Your task to perform on an android device: Open Reddit.com Image 0: 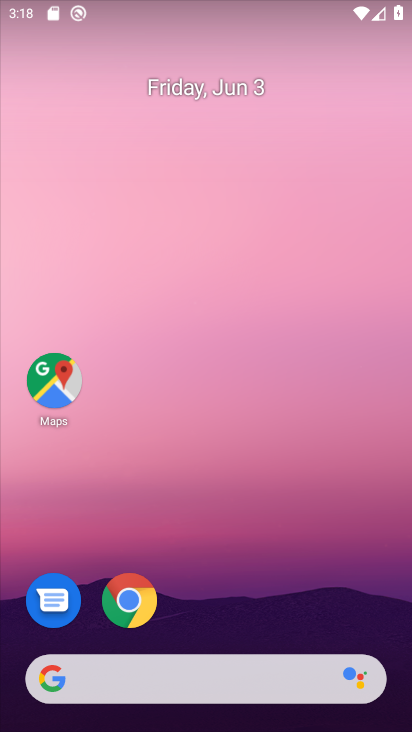
Step 0: click (129, 605)
Your task to perform on an android device: Open Reddit.com Image 1: 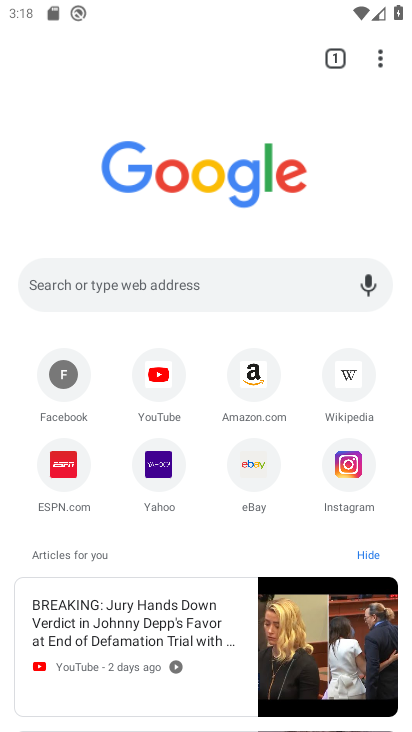
Step 1: click (176, 286)
Your task to perform on an android device: Open Reddit.com Image 2: 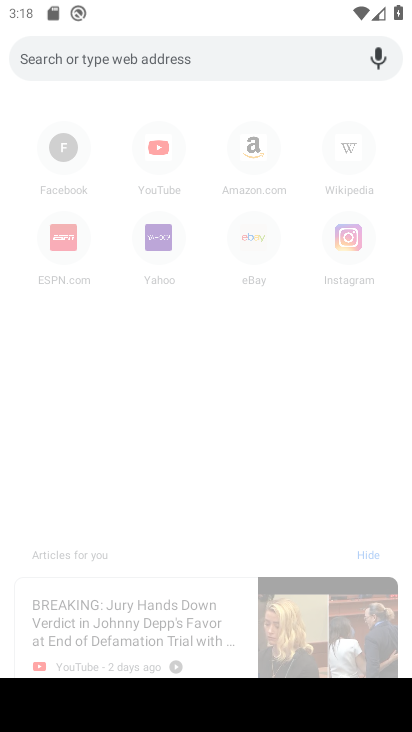
Step 2: type "reddit.com"
Your task to perform on an android device: Open Reddit.com Image 3: 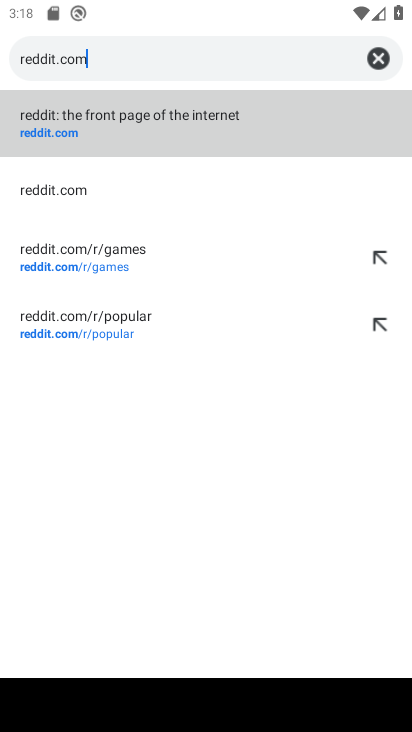
Step 3: click (26, 131)
Your task to perform on an android device: Open Reddit.com Image 4: 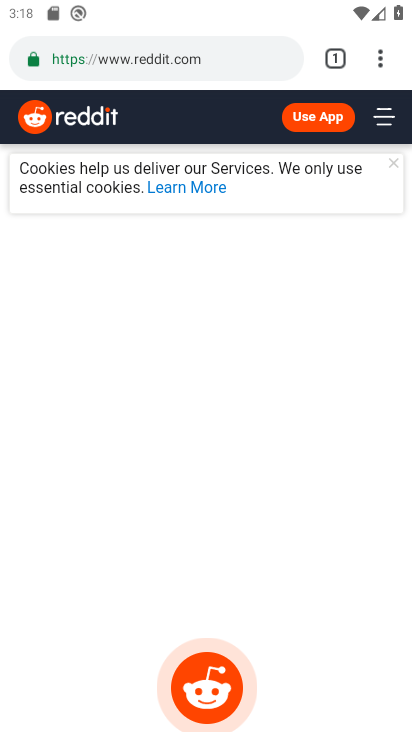
Step 4: task complete